Your task to perform on an android device: Open Amazon Image 0: 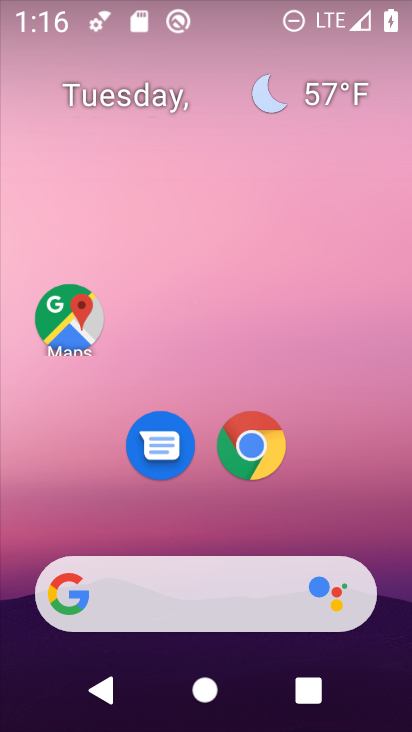
Step 0: drag from (358, 531) to (369, 143)
Your task to perform on an android device: Open Amazon Image 1: 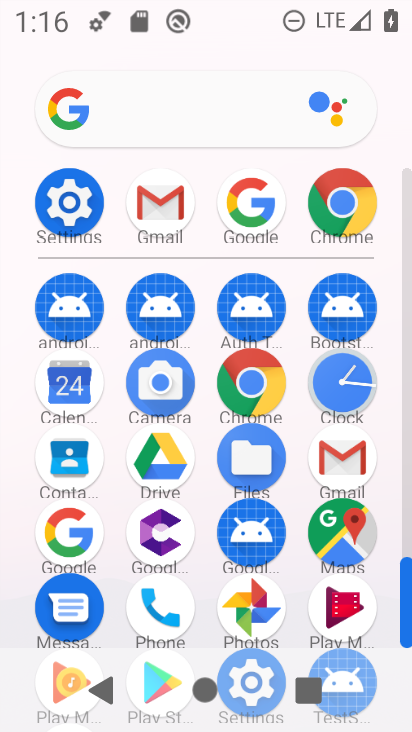
Step 1: click (258, 397)
Your task to perform on an android device: Open Amazon Image 2: 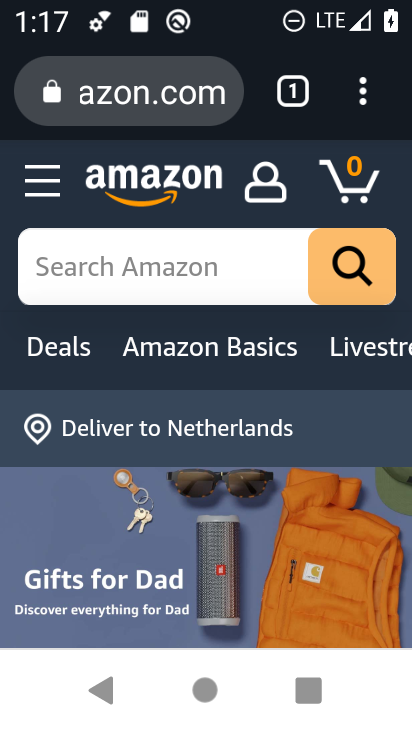
Step 2: task complete